Your task to perform on an android device: open app "Instagram" (install if not already installed), go to login, and select forgot password Image 0: 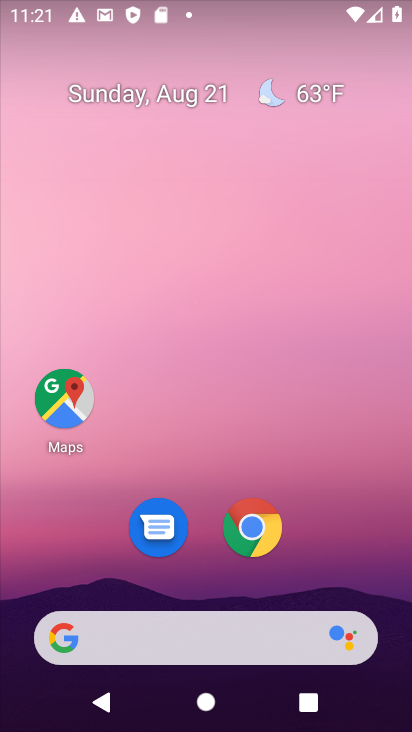
Step 0: drag from (288, 635) to (330, 25)
Your task to perform on an android device: open app "Instagram" (install if not already installed), go to login, and select forgot password Image 1: 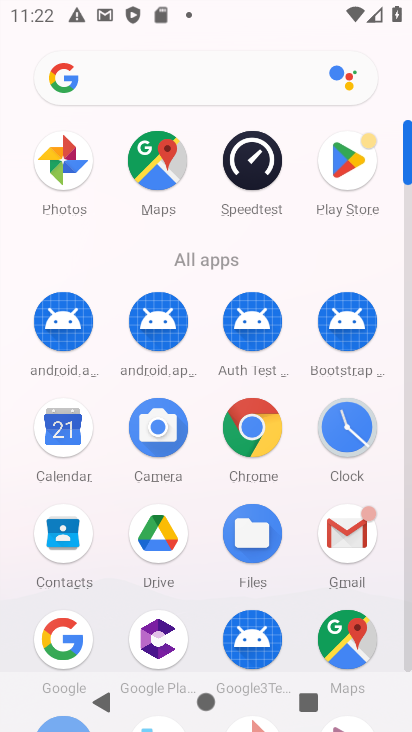
Step 1: click (353, 170)
Your task to perform on an android device: open app "Instagram" (install if not already installed), go to login, and select forgot password Image 2: 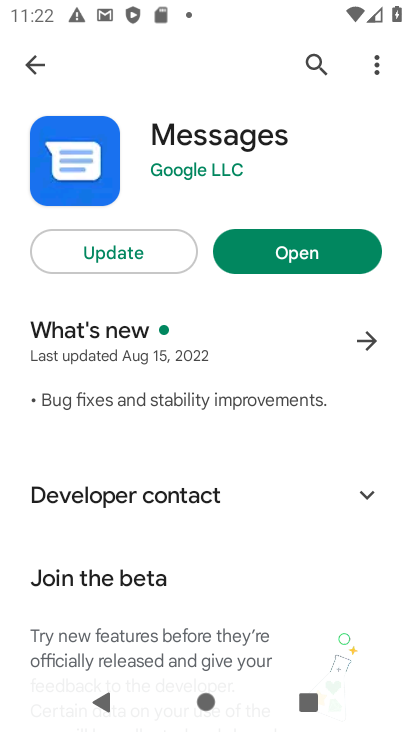
Step 2: press back button
Your task to perform on an android device: open app "Instagram" (install if not already installed), go to login, and select forgot password Image 3: 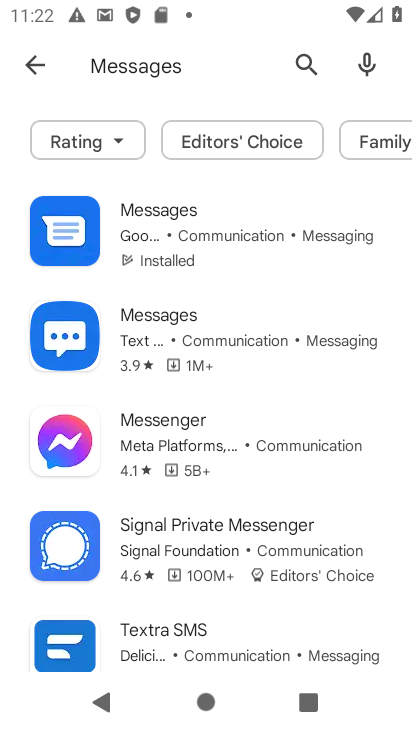
Step 3: press back button
Your task to perform on an android device: open app "Instagram" (install if not already installed), go to login, and select forgot password Image 4: 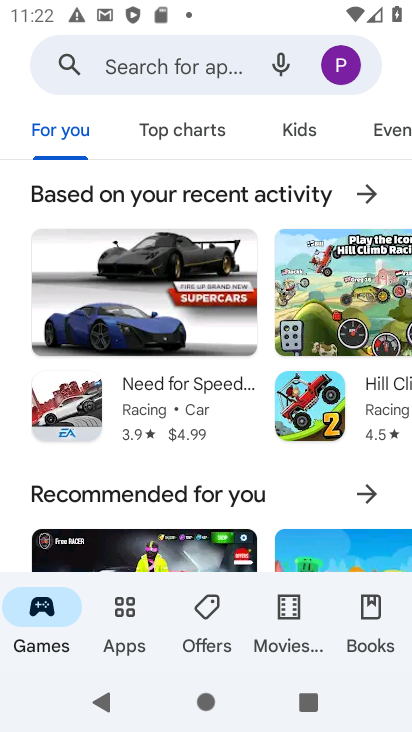
Step 4: click (184, 54)
Your task to perform on an android device: open app "Instagram" (install if not already installed), go to login, and select forgot password Image 5: 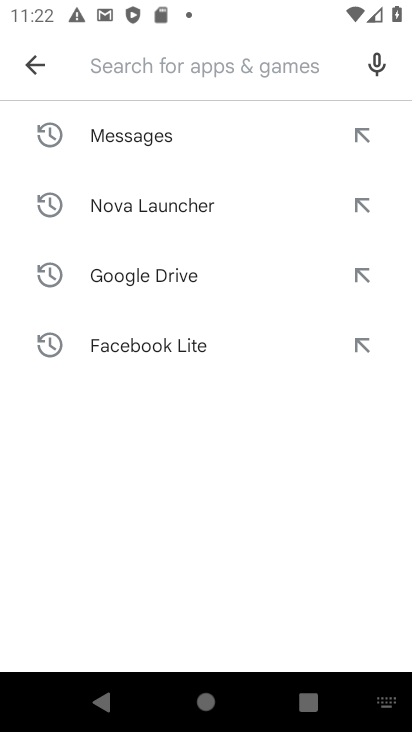
Step 5: type "Instagram"
Your task to perform on an android device: open app "Instagram" (install if not already installed), go to login, and select forgot password Image 6: 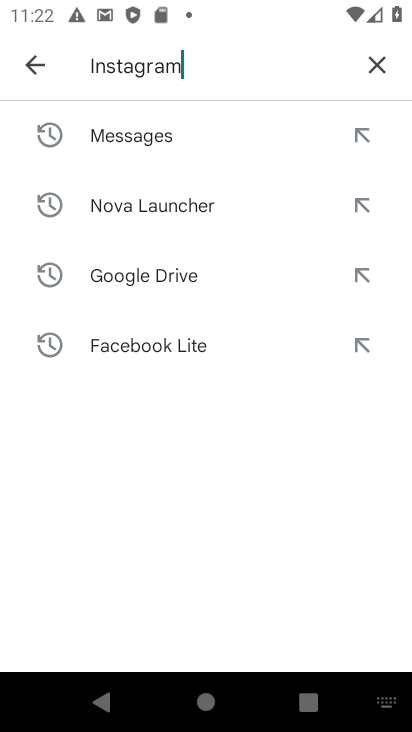
Step 6: press enter
Your task to perform on an android device: open app "Instagram" (install if not already installed), go to login, and select forgot password Image 7: 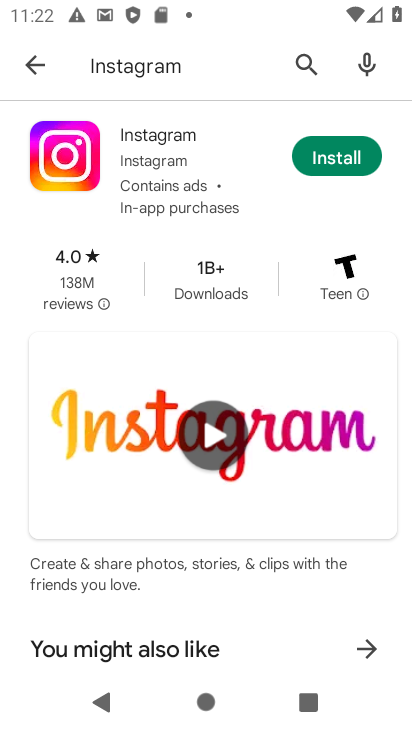
Step 7: click (328, 143)
Your task to perform on an android device: open app "Instagram" (install if not already installed), go to login, and select forgot password Image 8: 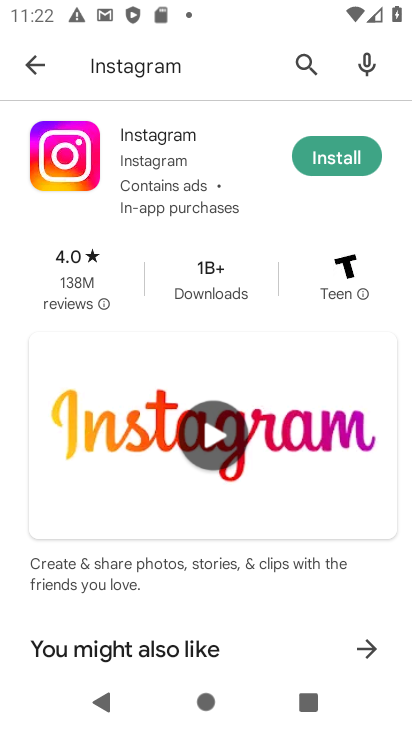
Step 8: click (336, 158)
Your task to perform on an android device: open app "Instagram" (install if not already installed), go to login, and select forgot password Image 9: 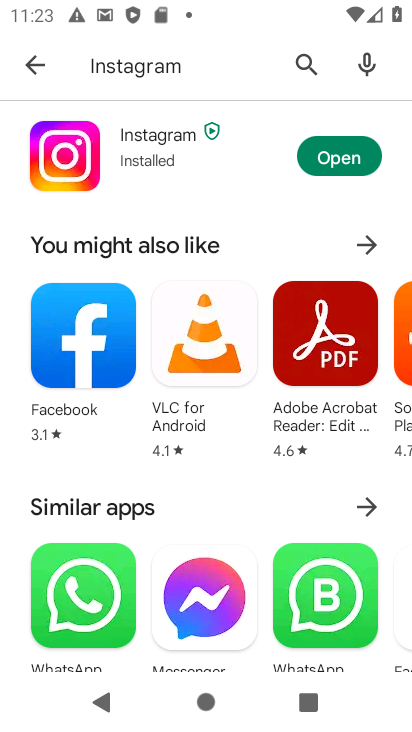
Step 9: click (340, 159)
Your task to perform on an android device: open app "Instagram" (install if not already installed), go to login, and select forgot password Image 10: 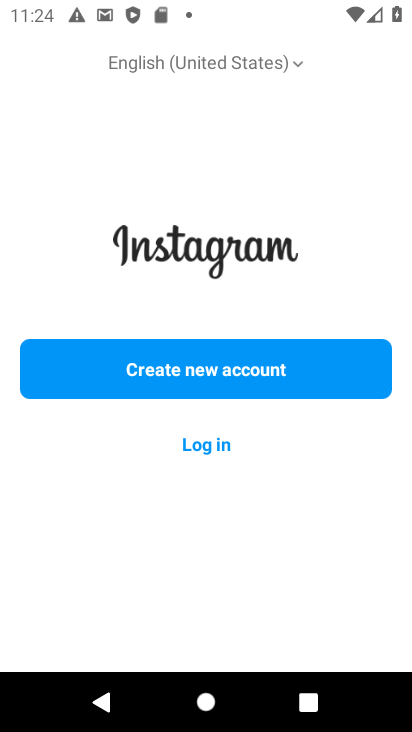
Step 10: click (215, 439)
Your task to perform on an android device: open app "Instagram" (install if not already installed), go to login, and select forgot password Image 11: 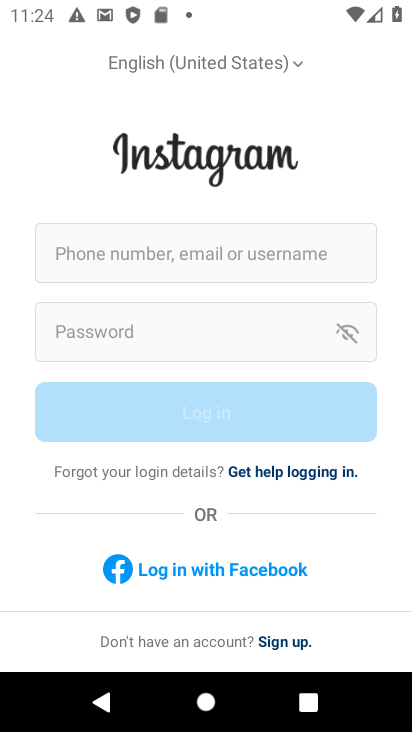
Step 11: drag from (314, 617) to (351, 277)
Your task to perform on an android device: open app "Instagram" (install if not already installed), go to login, and select forgot password Image 12: 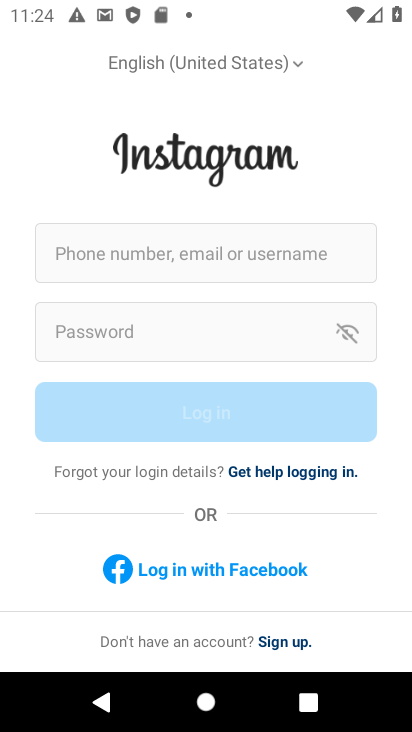
Step 12: click (92, 467)
Your task to perform on an android device: open app "Instagram" (install if not already installed), go to login, and select forgot password Image 13: 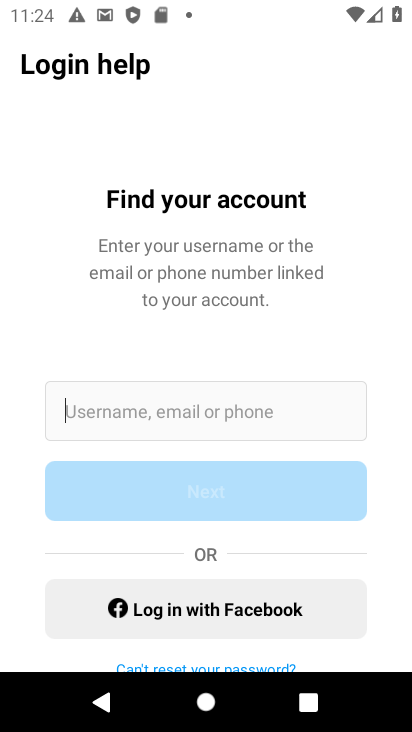
Step 13: task complete